Your task to perform on an android device: Open my contact list Image 0: 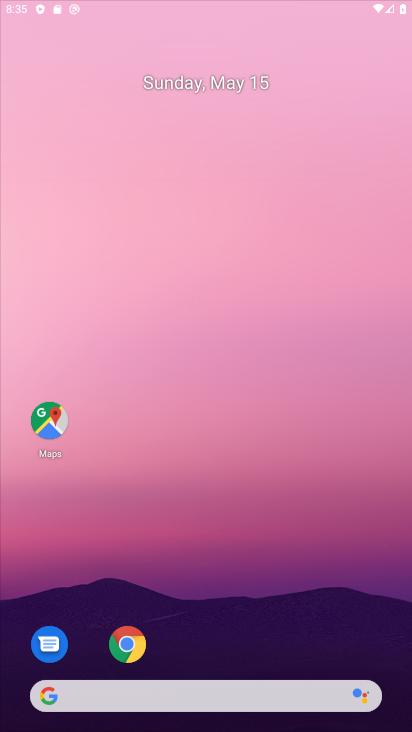
Step 0: drag from (192, 664) to (127, 16)
Your task to perform on an android device: Open my contact list Image 1: 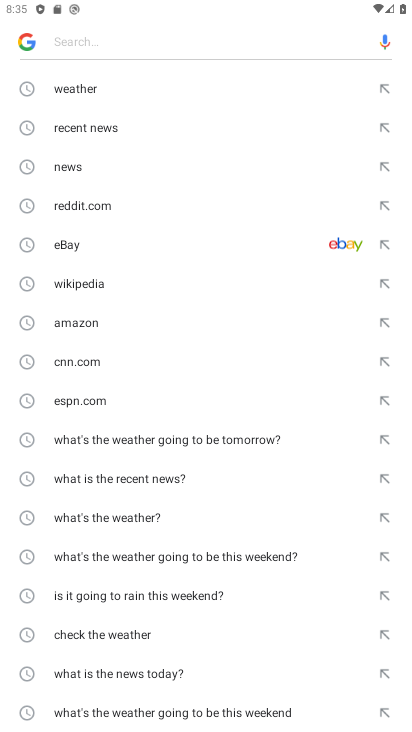
Step 1: press back button
Your task to perform on an android device: Open my contact list Image 2: 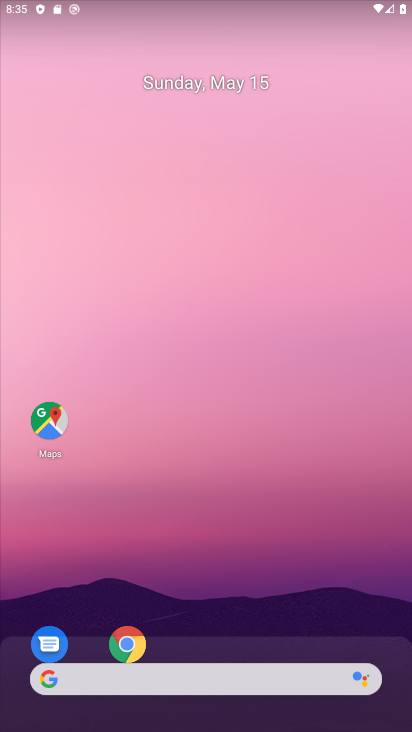
Step 2: drag from (196, 667) to (82, 58)
Your task to perform on an android device: Open my contact list Image 3: 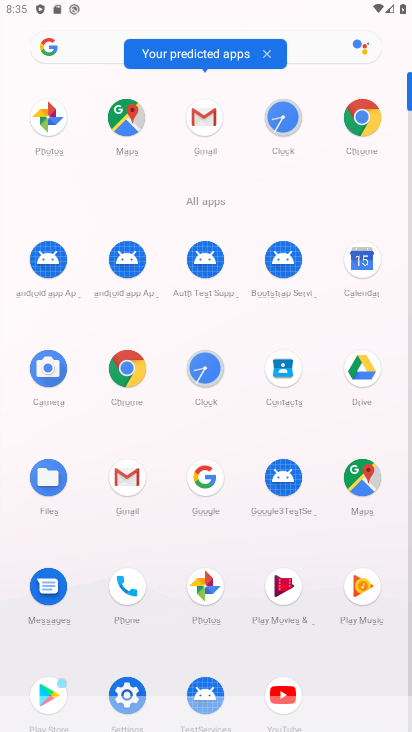
Step 3: click (135, 586)
Your task to perform on an android device: Open my contact list Image 4: 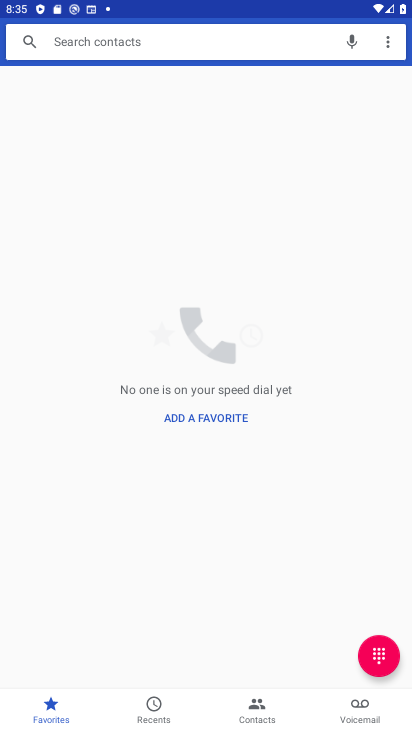
Step 4: click (260, 706)
Your task to perform on an android device: Open my contact list Image 5: 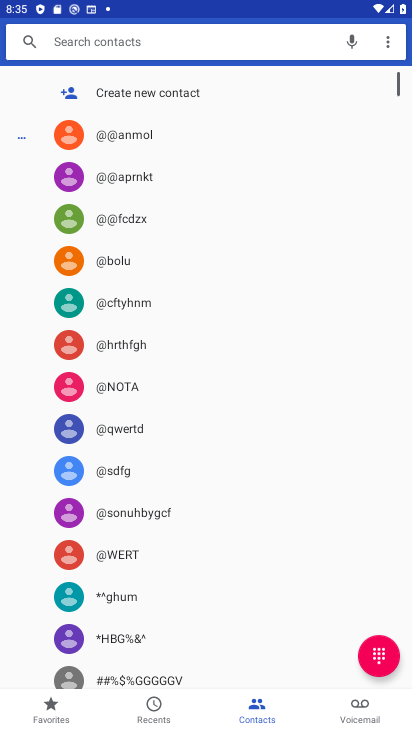
Step 5: task complete